Your task to perform on an android device: Search for seafood restaurants on Google Maps Image 0: 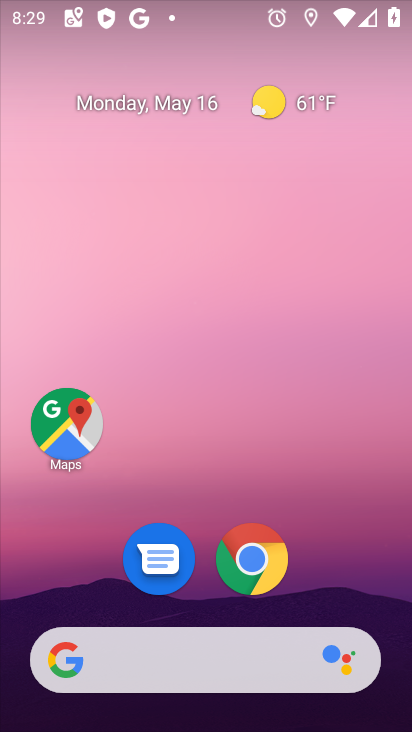
Step 0: drag from (339, 583) to (341, 139)
Your task to perform on an android device: Search for seafood restaurants on Google Maps Image 1: 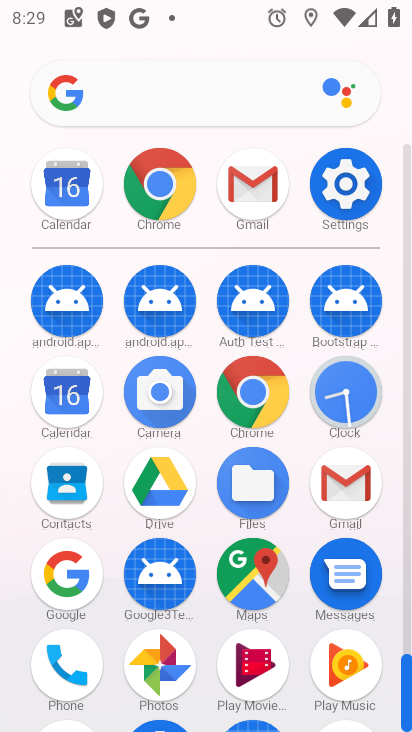
Step 1: click (253, 589)
Your task to perform on an android device: Search for seafood restaurants on Google Maps Image 2: 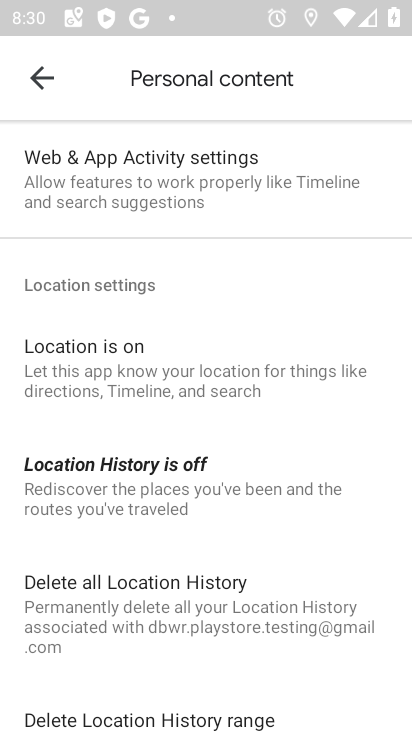
Step 2: press home button
Your task to perform on an android device: Search for seafood restaurants on Google Maps Image 3: 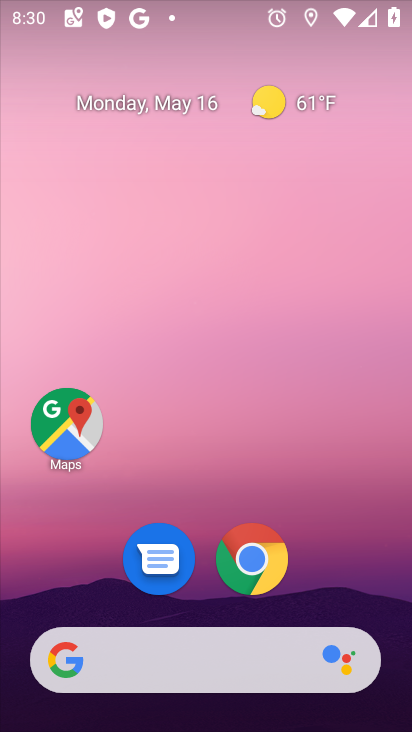
Step 3: drag from (377, 574) to (304, 125)
Your task to perform on an android device: Search for seafood restaurants on Google Maps Image 4: 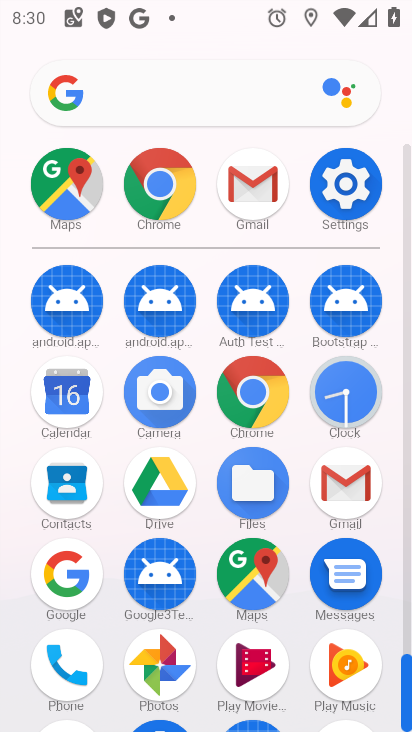
Step 4: click (241, 597)
Your task to perform on an android device: Search for seafood restaurants on Google Maps Image 5: 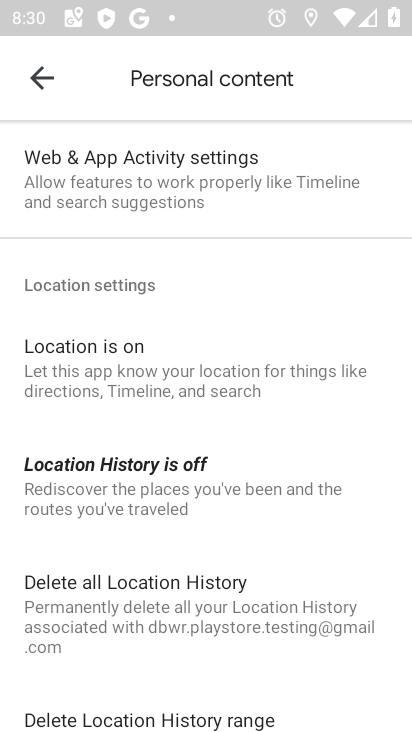
Step 5: click (45, 85)
Your task to perform on an android device: Search for seafood restaurants on Google Maps Image 6: 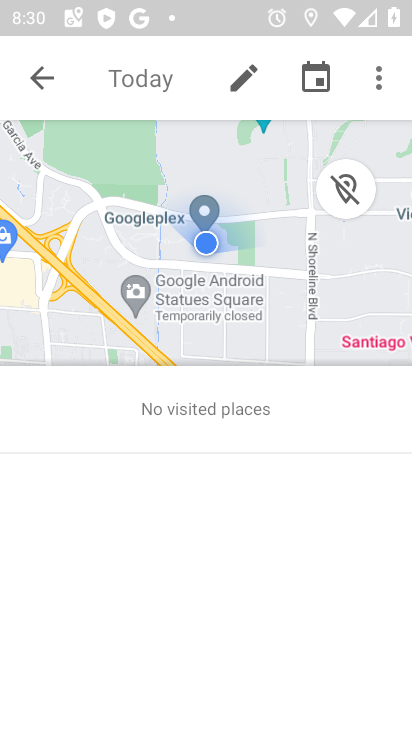
Step 6: click (44, 84)
Your task to perform on an android device: Search for seafood restaurants on Google Maps Image 7: 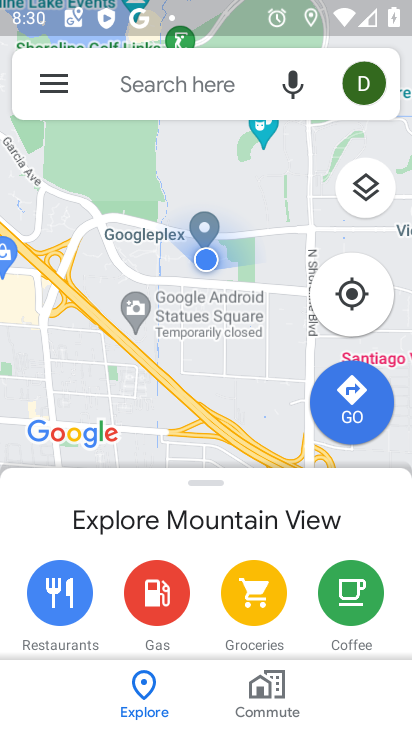
Step 7: click (172, 88)
Your task to perform on an android device: Search for seafood restaurants on Google Maps Image 8: 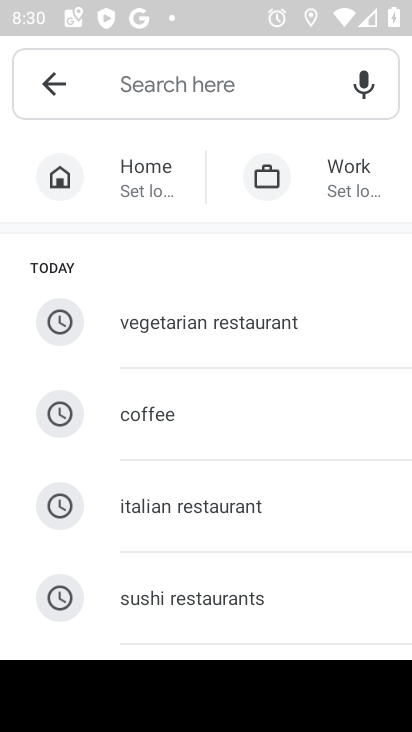
Step 8: type "seafood restaurants"
Your task to perform on an android device: Search for seafood restaurants on Google Maps Image 9: 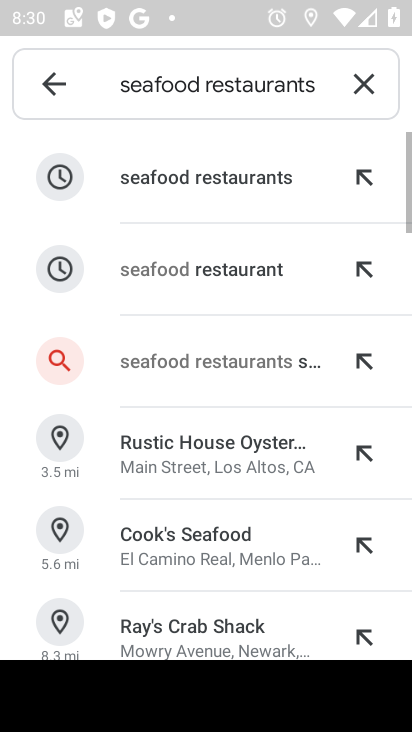
Step 9: click (206, 184)
Your task to perform on an android device: Search for seafood restaurants on Google Maps Image 10: 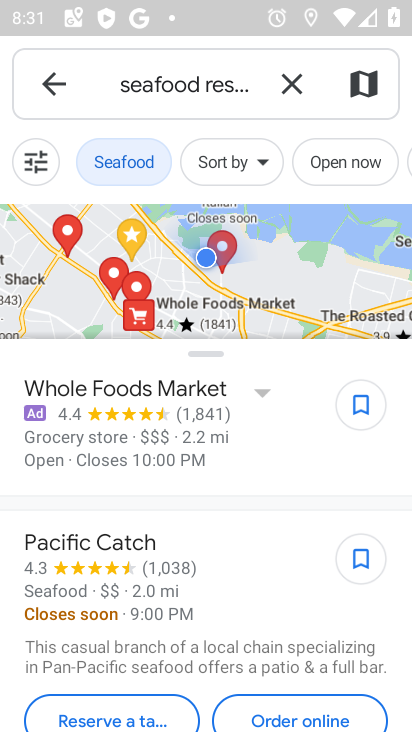
Step 10: task complete